Your task to perform on an android device: find photos in the google photos app Image 0: 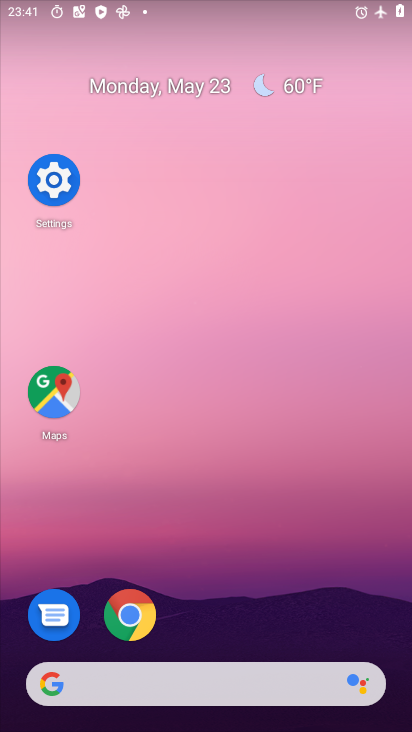
Step 0: drag from (247, 569) to (297, 0)
Your task to perform on an android device: find photos in the google photos app Image 1: 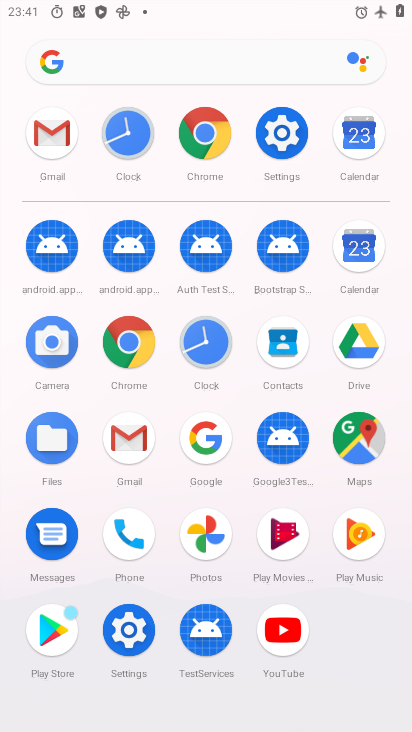
Step 1: click (204, 524)
Your task to perform on an android device: find photos in the google photos app Image 2: 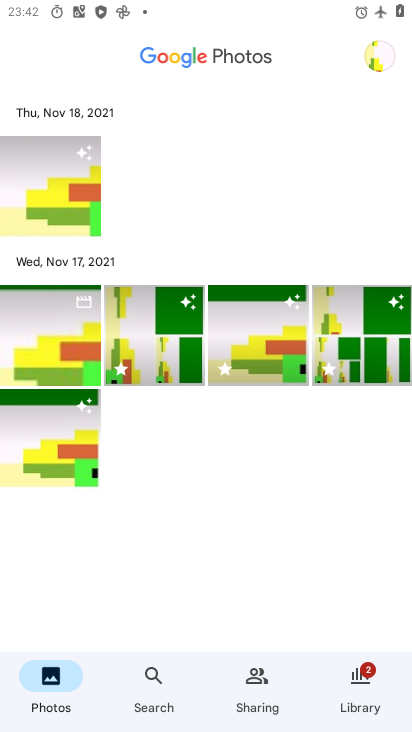
Step 2: task complete